Your task to perform on an android device: Open Google Chrome and click the shortcut for Amazon.com Image 0: 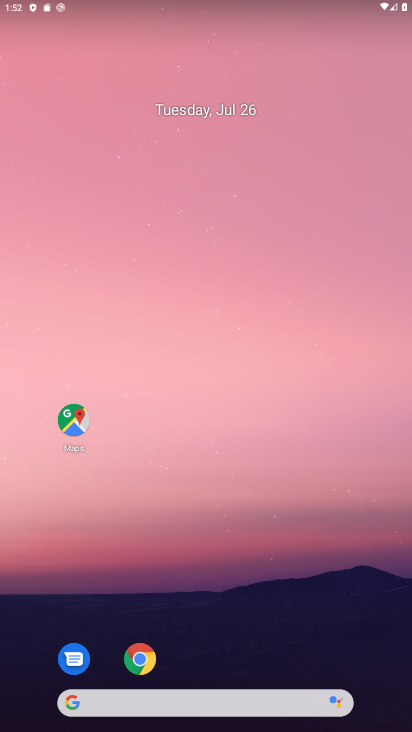
Step 0: click (141, 656)
Your task to perform on an android device: Open Google Chrome and click the shortcut for Amazon.com Image 1: 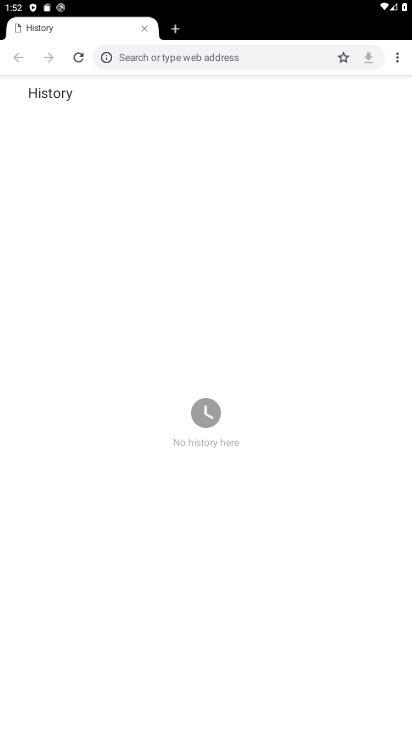
Step 1: click (396, 59)
Your task to perform on an android device: Open Google Chrome and click the shortcut for Amazon.com Image 2: 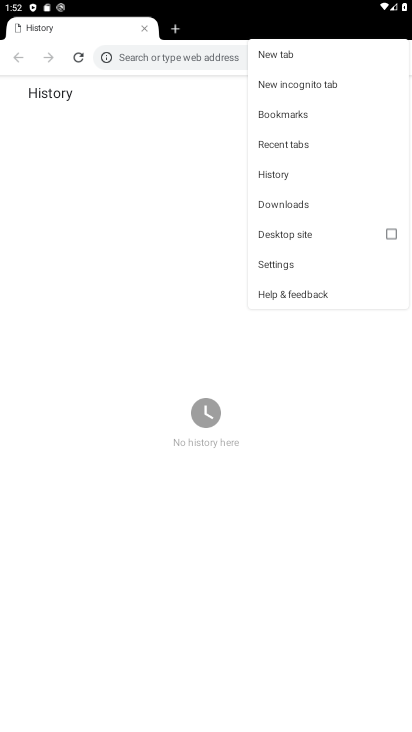
Step 2: click (275, 56)
Your task to perform on an android device: Open Google Chrome and click the shortcut for Amazon.com Image 3: 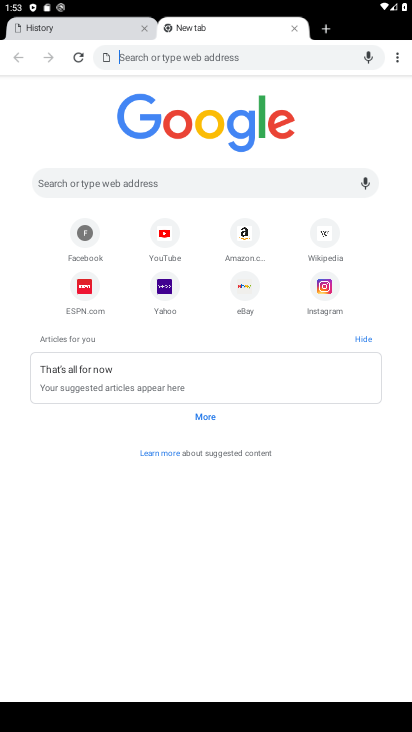
Step 3: click (251, 234)
Your task to perform on an android device: Open Google Chrome and click the shortcut for Amazon.com Image 4: 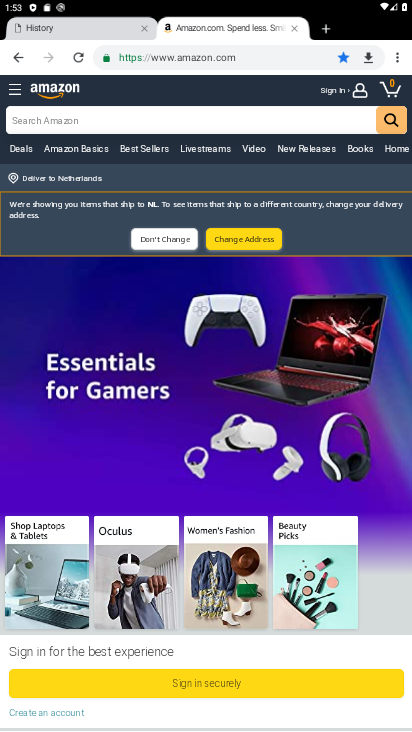
Step 4: task complete